Your task to perform on an android device: What's on my calendar today? Image 0: 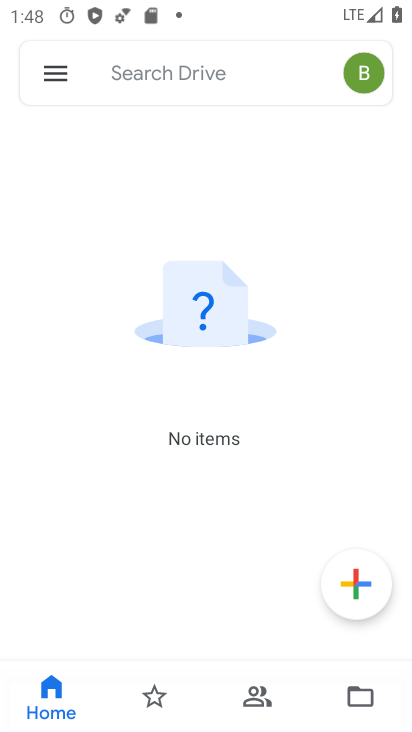
Step 0: press home button
Your task to perform on an android device: What's on my calendar today? Image 1: 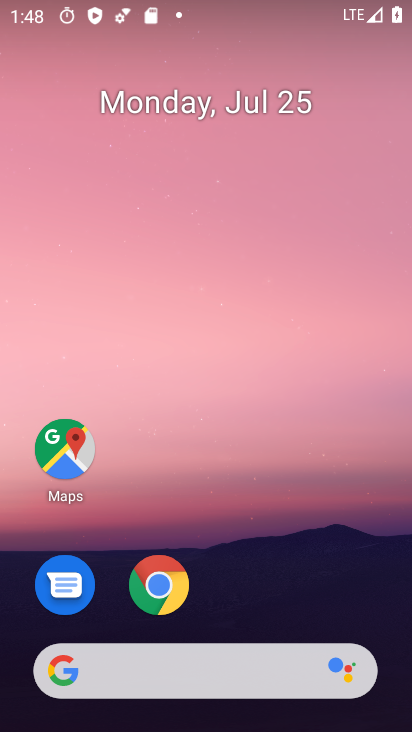
Step 1: drag from (219, 662) to (214, 54)
Your task to perform on an android device: What's on my calendar today? Image 2: 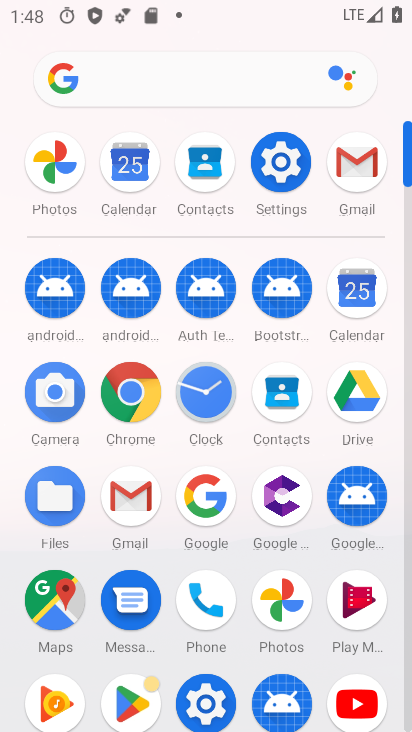
Step 2: click (353, 315)
Your task to perform on an android device: What's on my calendar today? Image 3: 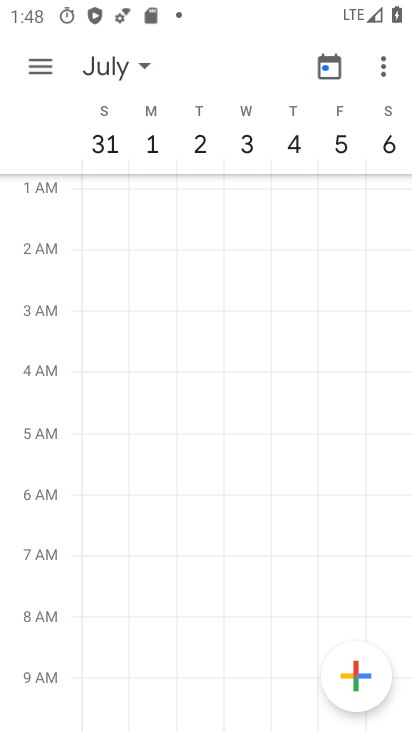
Step 3: click (116, 65)
Your task to perform on an android device: What's on my calendar today? Image 4: 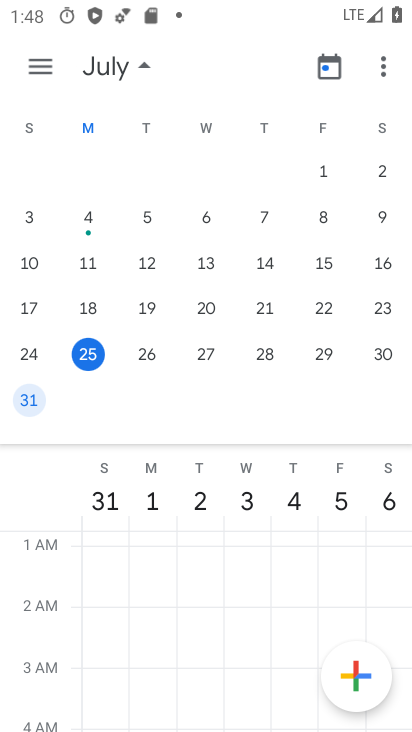
Step 4: click (82, 357)
Your task to perform on an android device: What's on my calendar today? Image 5: 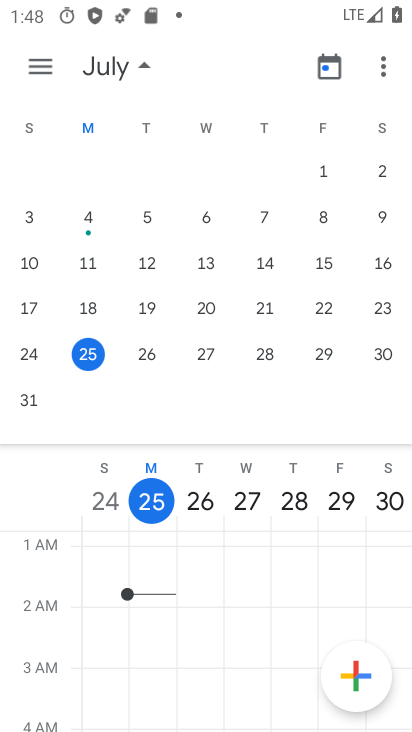
Step 5: task complete